Your task to perform on an android device: turn on bluetooth scan Image 0: 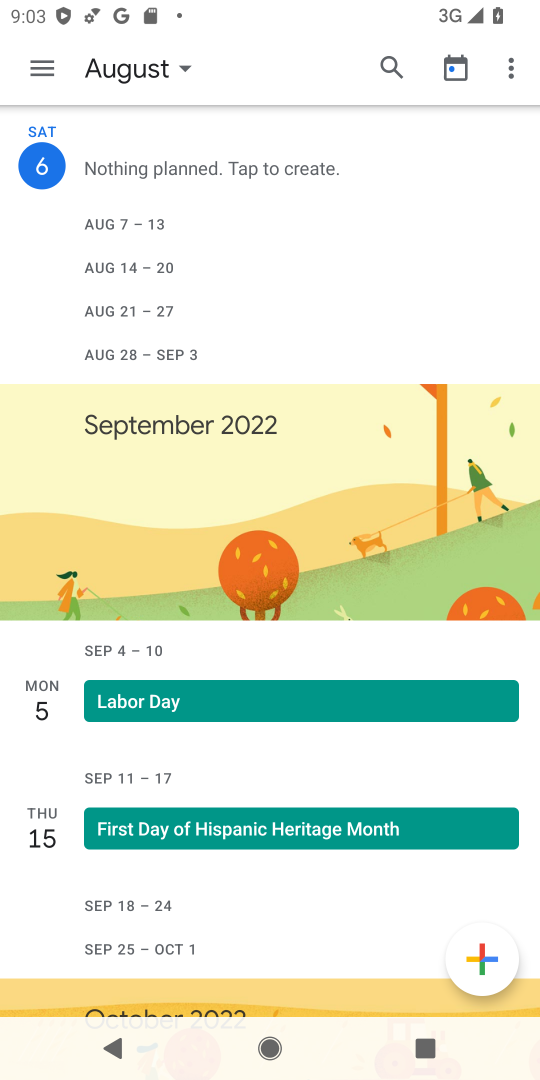
Step 0: press home button
Your task to perform on an android device: turn on bluetooth scan Image 1: 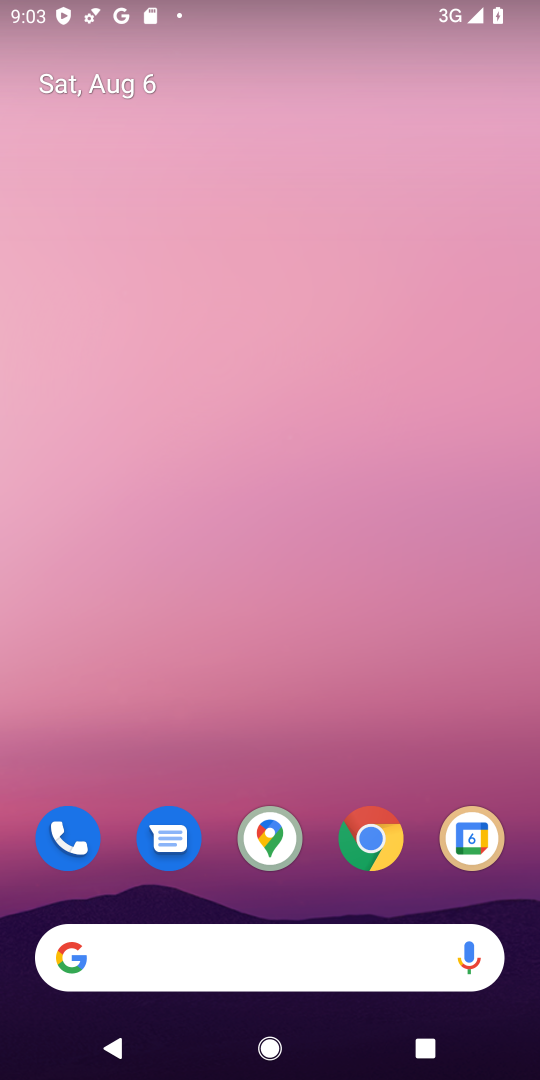
Step 1: drag from (383, 756) to (286, 205)
Your task to perform on an android device: turn on bluetooth scan Image 2: 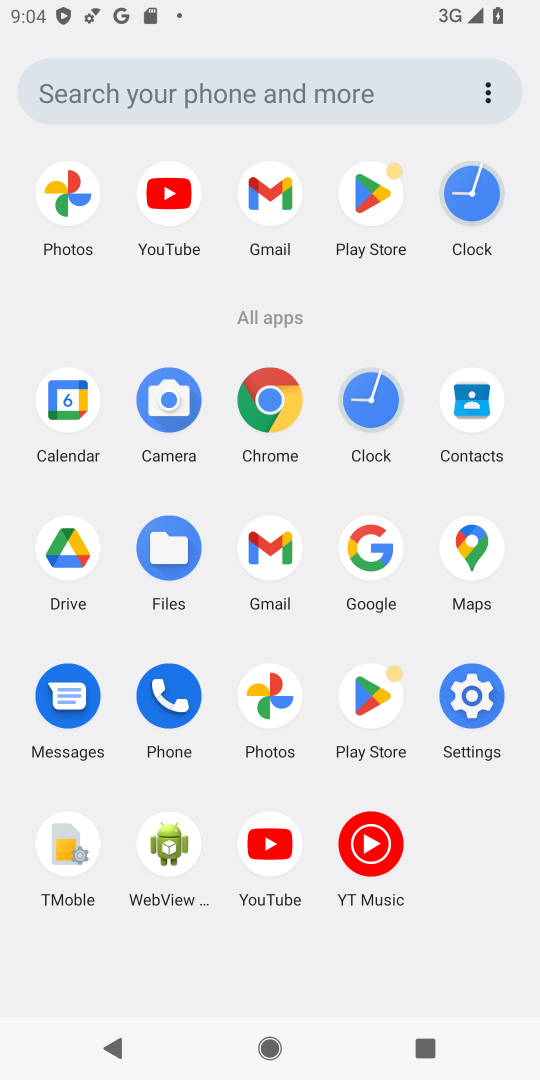
Step 2: click (491, 716)
Your task to perform on an android device: turn on bluetooth scan Image 3: 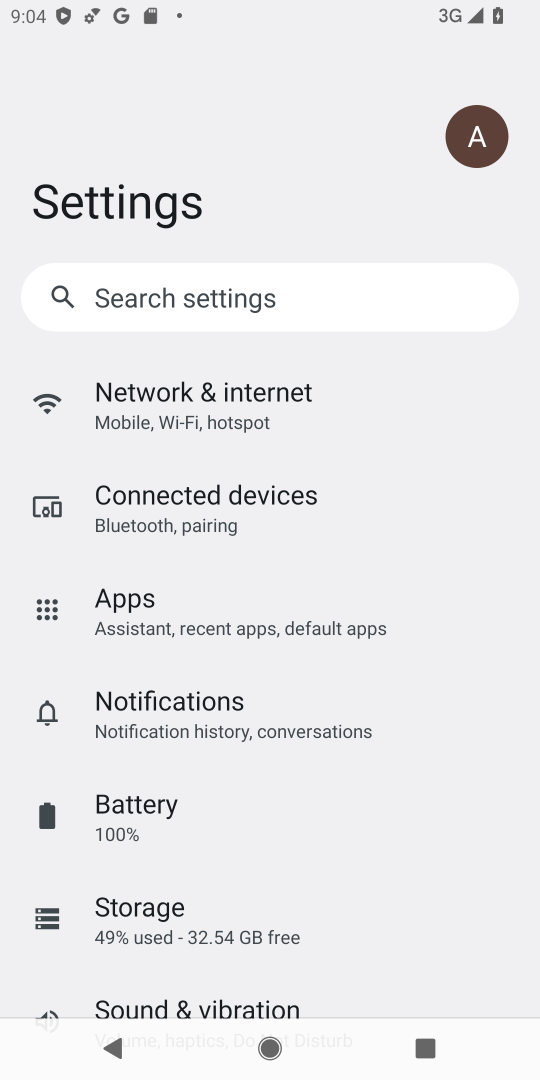
Step 3: drag from (282, 829) to (154, 215)
Your task to perform on an android device: turn on bluetooth scan Image 4: 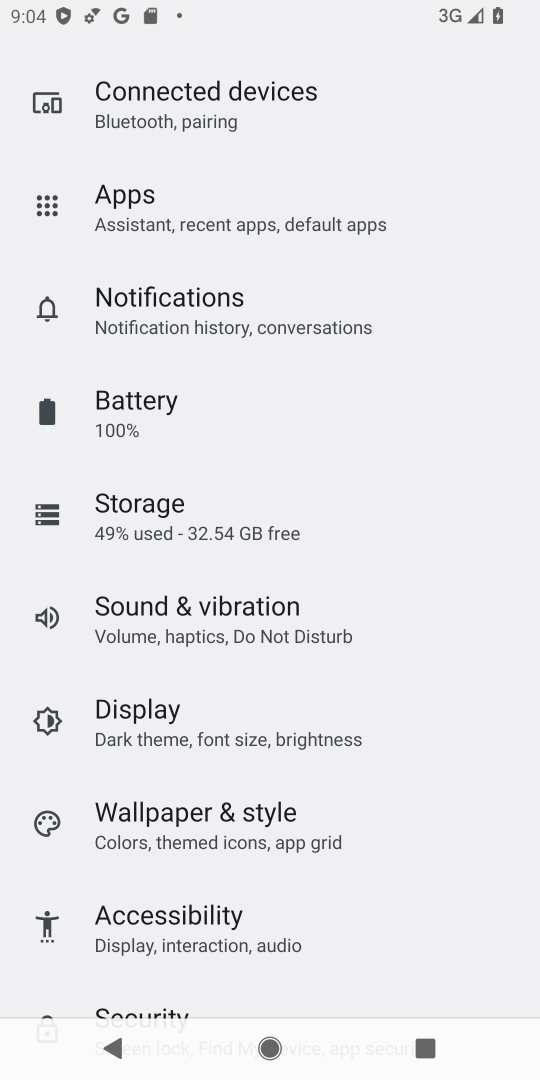
Step 4: drag from (302, 918) to (185, 445)
Your task to perform on an android device: turn on bluetooth scan Image 5: 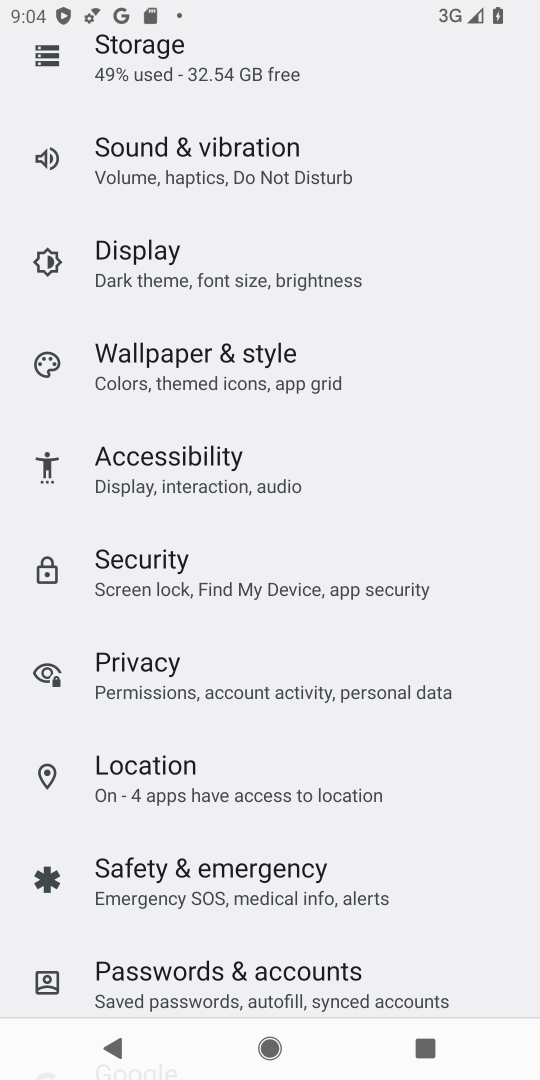
Step 5: click (227, 792)
Your task to perform on an android device: turn on bluetooth scan Image 6: 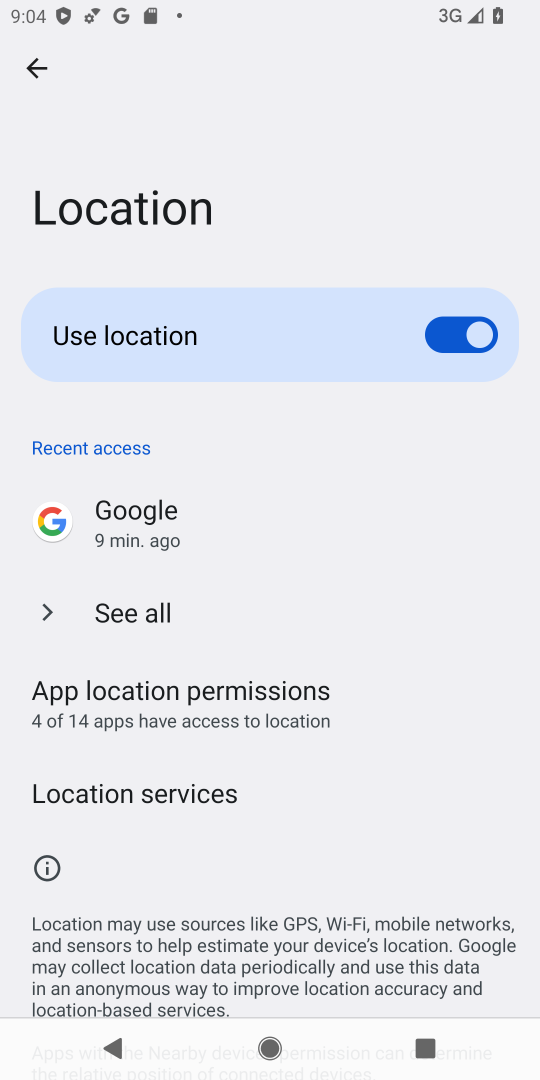
Step 6: click (231, 781)
Your task to perform on an android device: turn on bluetooth scan Image 7: 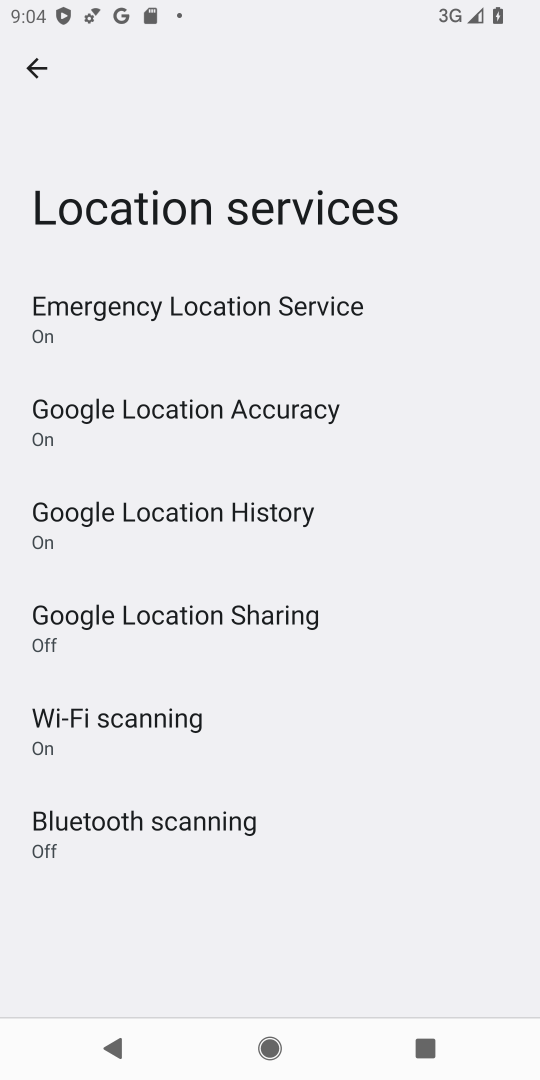
Step 7: click (271, 811)
Your task to perform on an android device: turn on bluetooth scan Image 8: 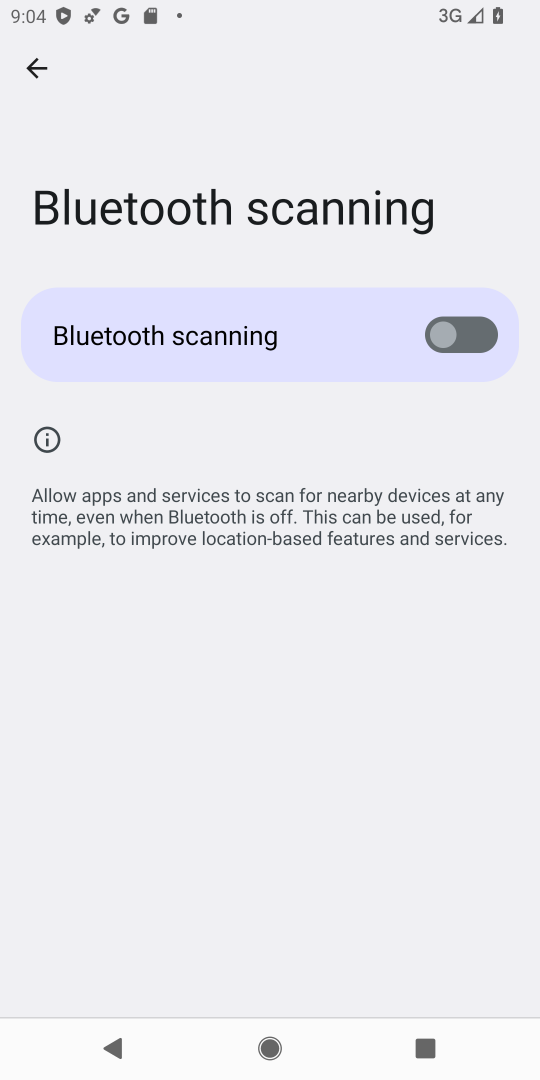
Step 8: click (445, 324)
Your task to perform on an android device: turn on bluetooth scan Image 9: 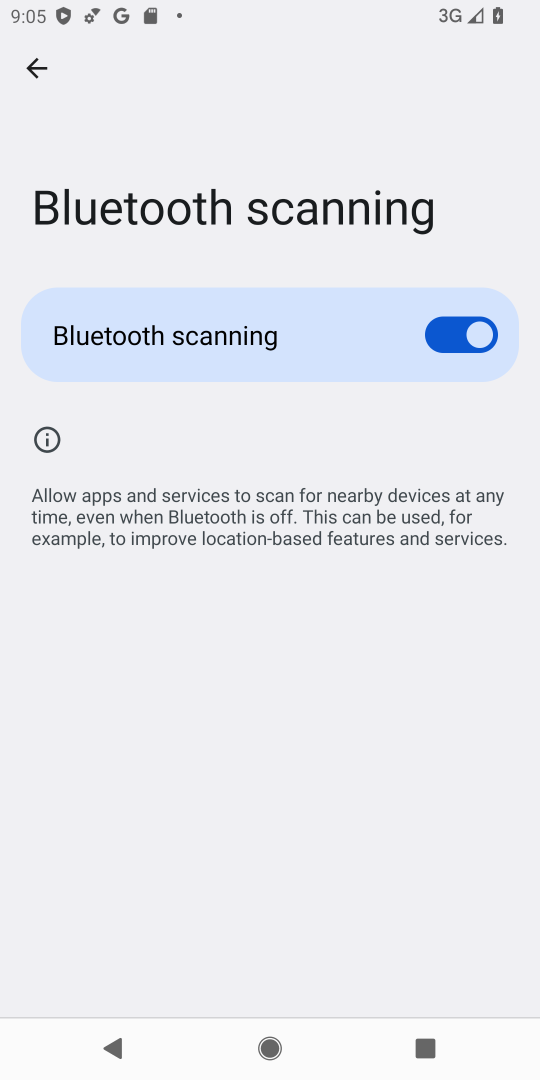
Step 9: task complete